Your task to perform on an android device: Go to Wikipedia Image 0: 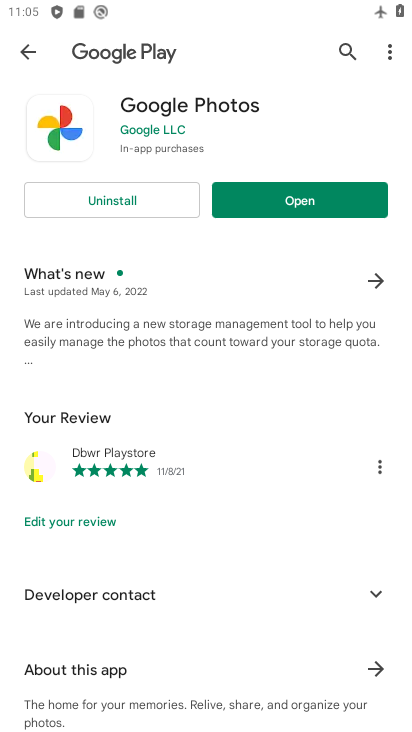
Step 0: press home button
Your task to perform on an android device: Go to Wikipedia Image 1: 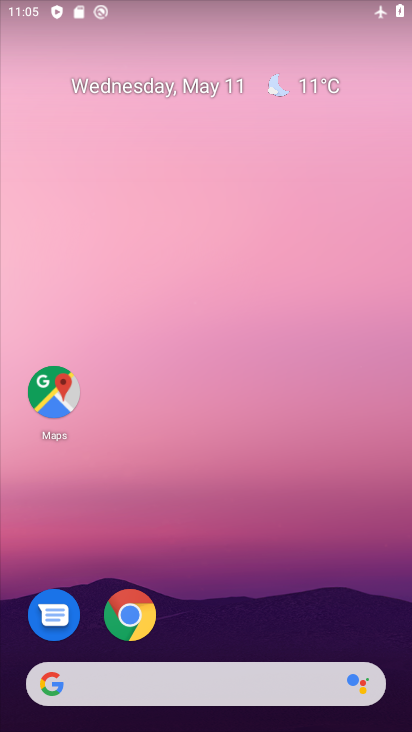
Step 1: drag from (311, 626) to (262, 100)
Your task to perform on an android device: Go to Wikipedia Image 2: 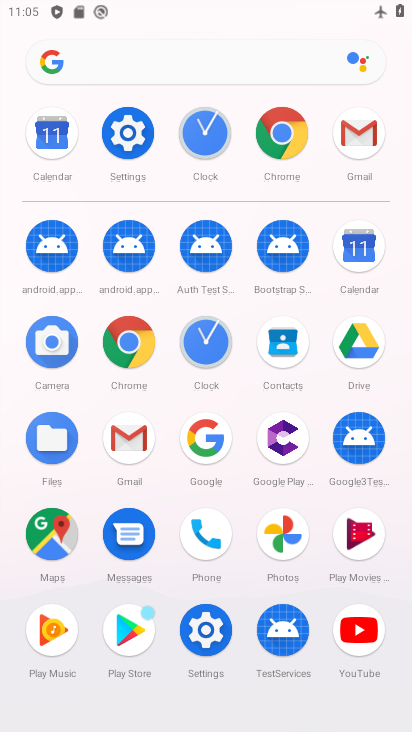
Step 2: click (131, 342)
Your task to perform on an android device: Go to Wikipedia Image 3: 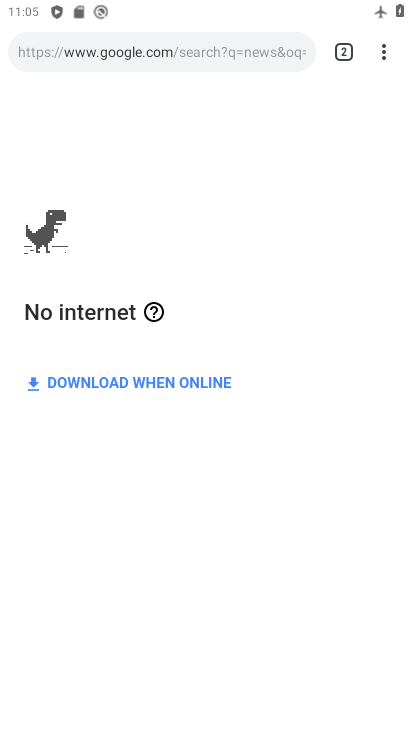
Step 3: click (174, 37)
Your task to perform on an android device: Go to Wikipedia Image 4: 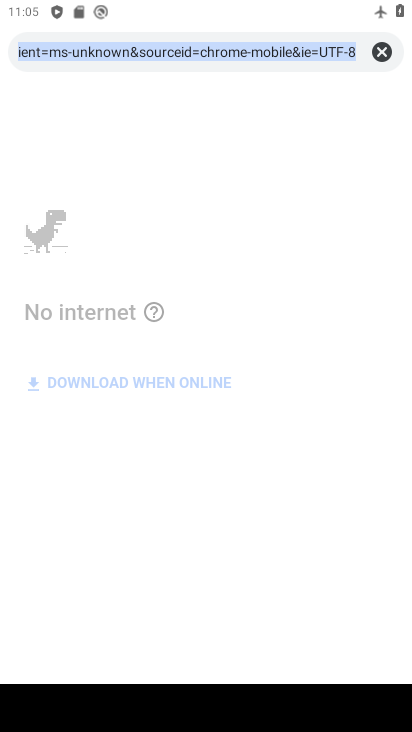
Step 4: type "wikipsxi"
Your task to perform on an android device: Go to Wikipedia Image 5: 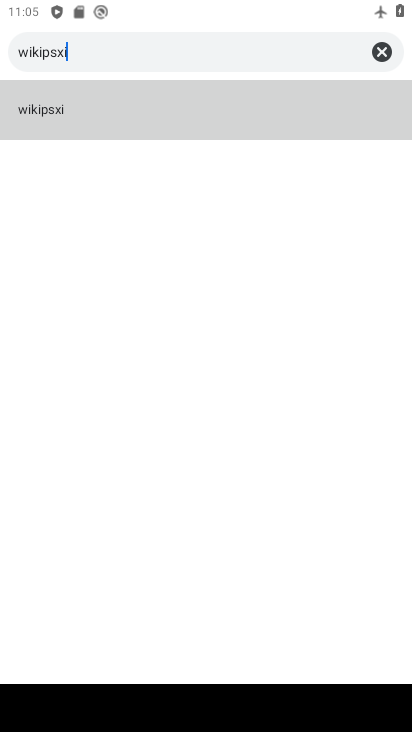
Step 5: type "wikipedia"
Your task to perform on an android device: Go to Wikipedia Image 6: 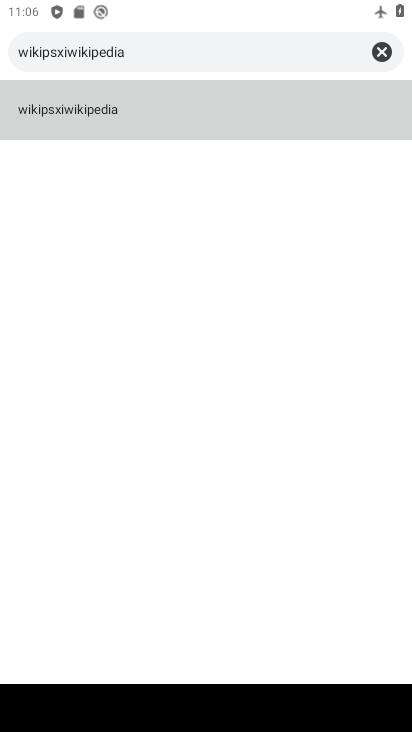
Step 6: click (85, 107)
Your task to perform on an android device: Go to Wikipedia Image 7: 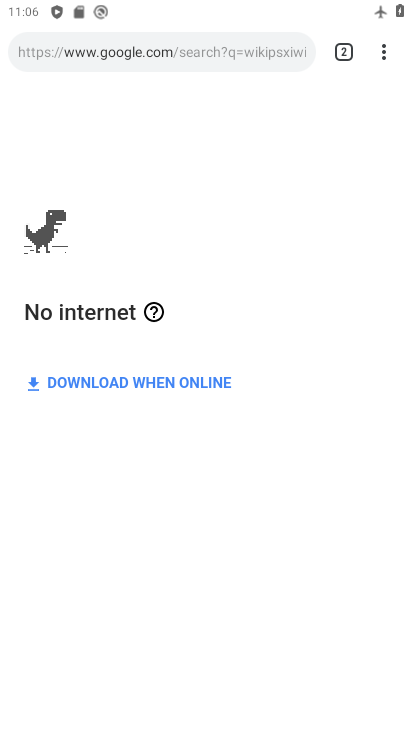
Step 7: task complete